Your task to perform on an android device: Go to Google Image 0: 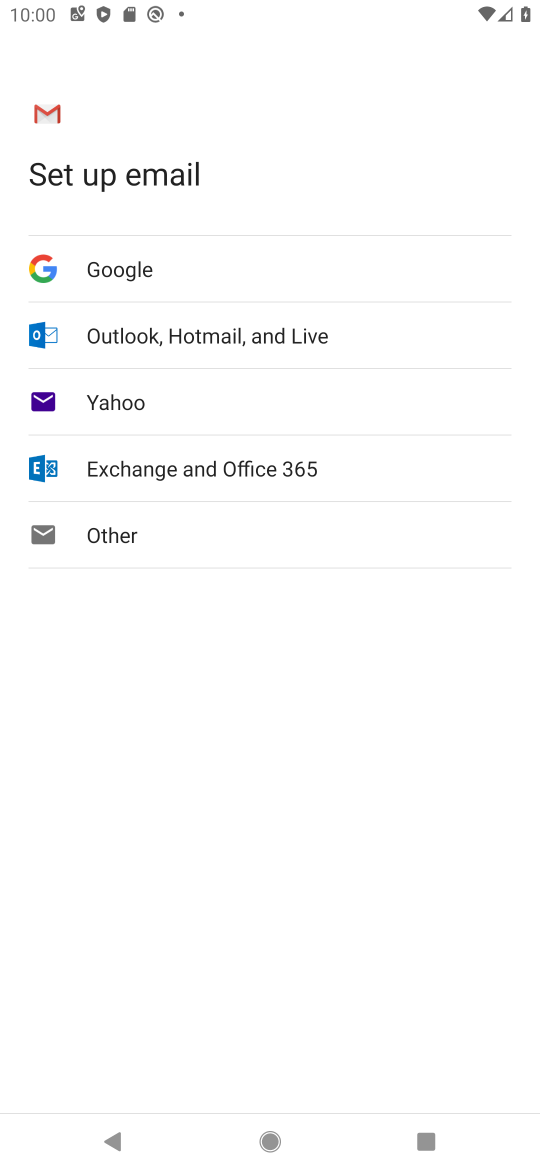
Step 0: press home button
Your task to perform on an android device: Go to Google Image 1: 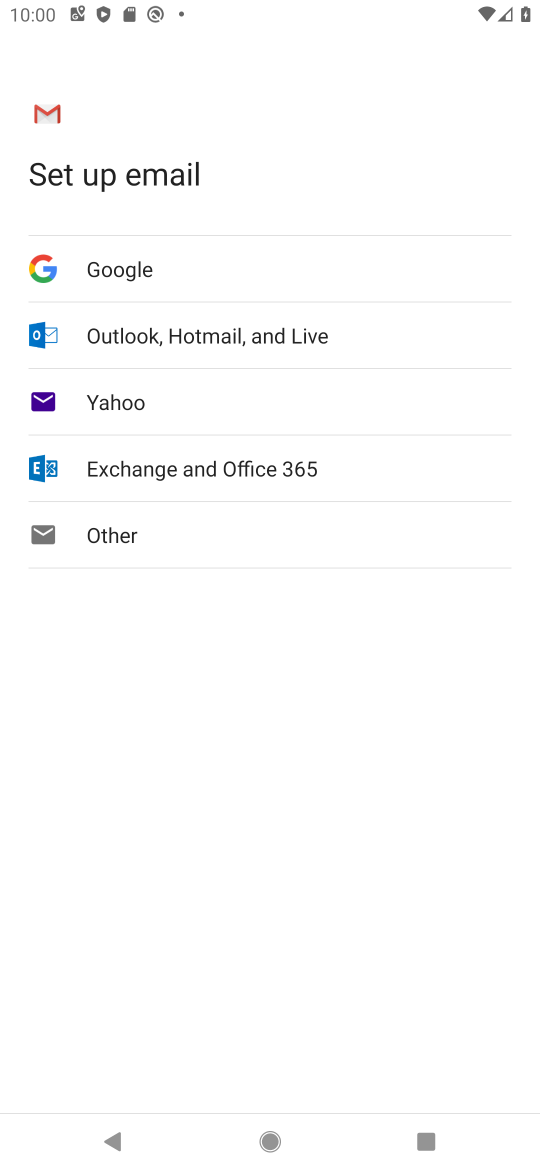
Step 1: press home button
Your task to perform on an android device: Go to Google Image 2: 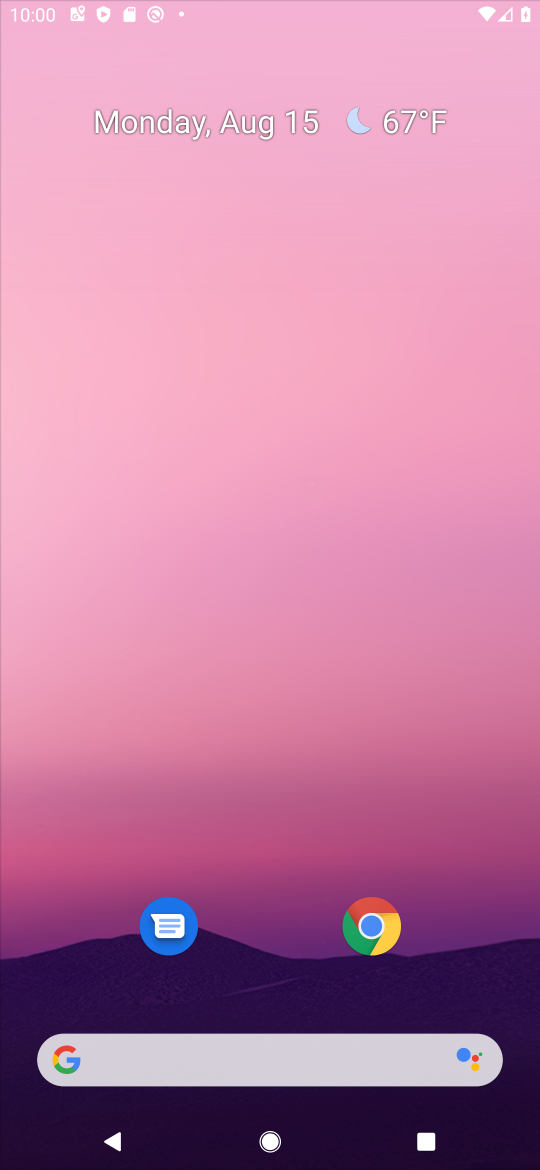
Step 2: press home button
Your task to perform on an android device: Go to Google Image 3: 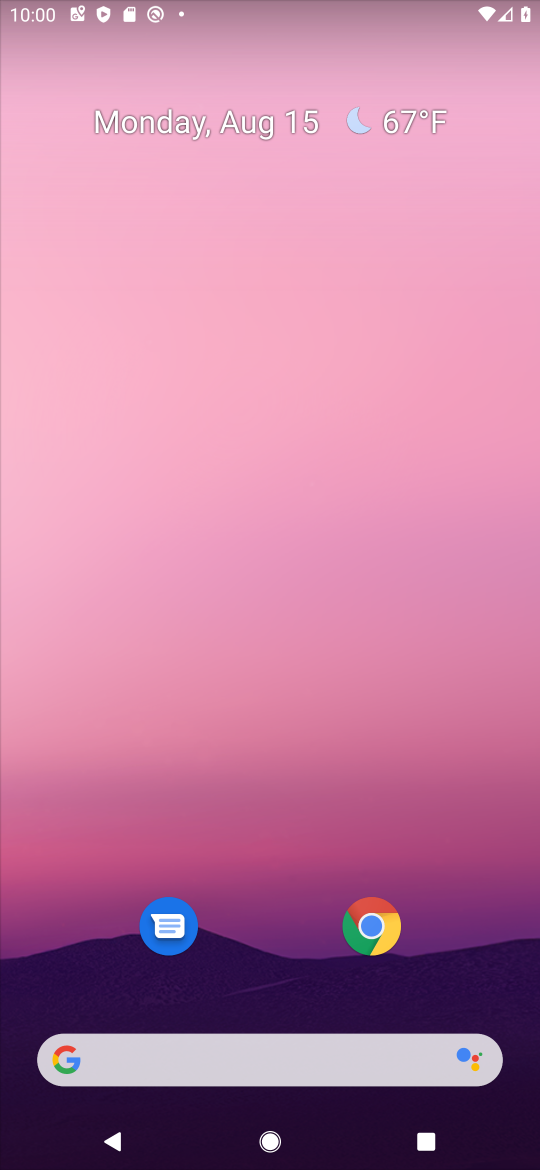
Step 3: click (373, 932)
Your task to perform on an android device: Go to Google Image 4: 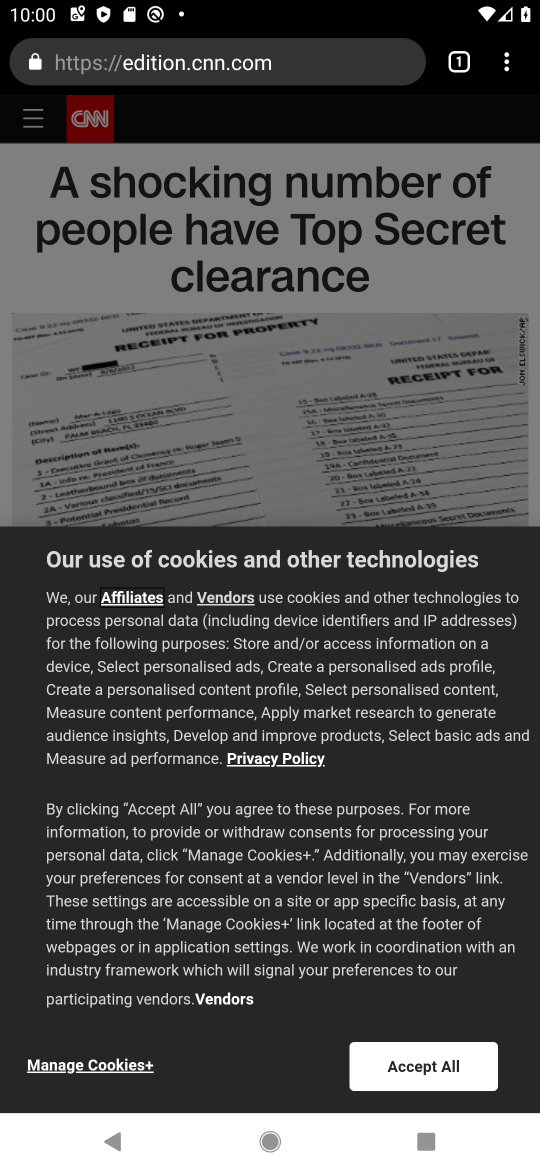
Step 4: click (506, 62)
Your task to perform on an android device: Go to Google Image 5: 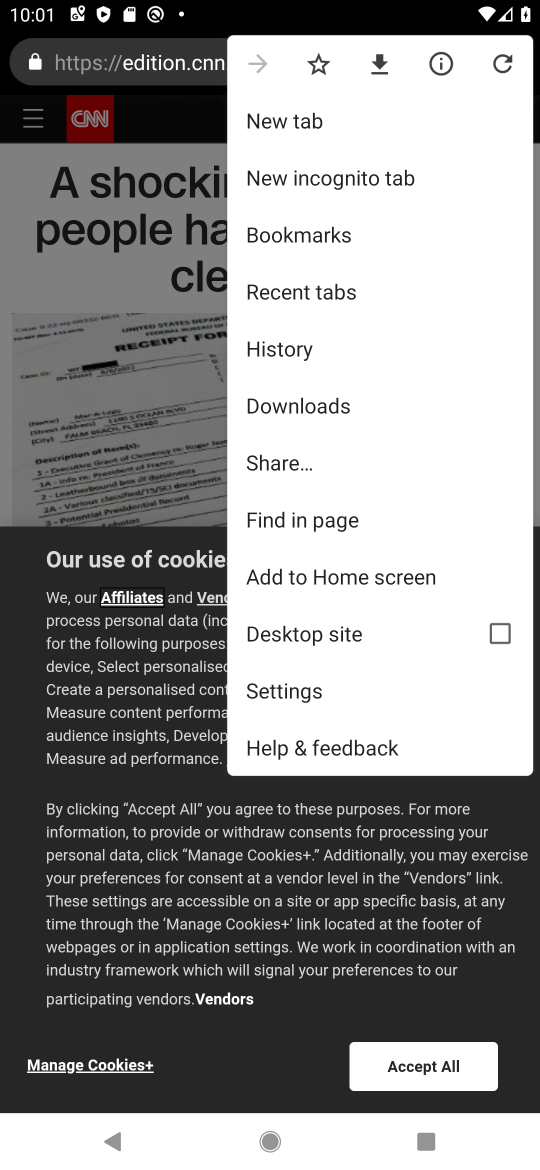
Step 5: press home button
Your task to perform on an android device: Go to Google Image 6: 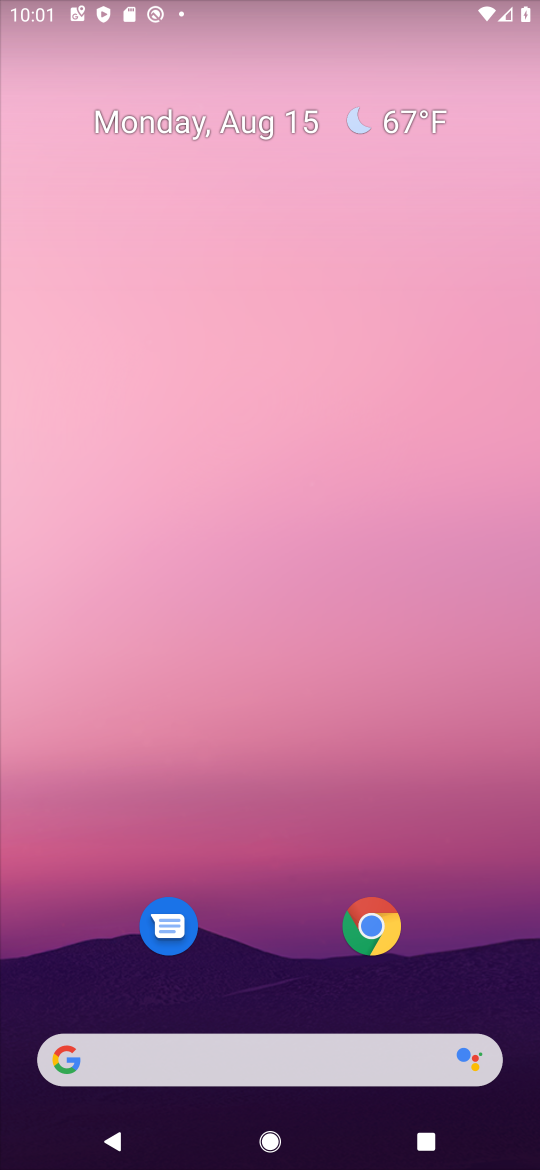
Step 6: drag from (251, 664) to (165, 61)
Your task to perform on an android device: Go to Google Image 7: 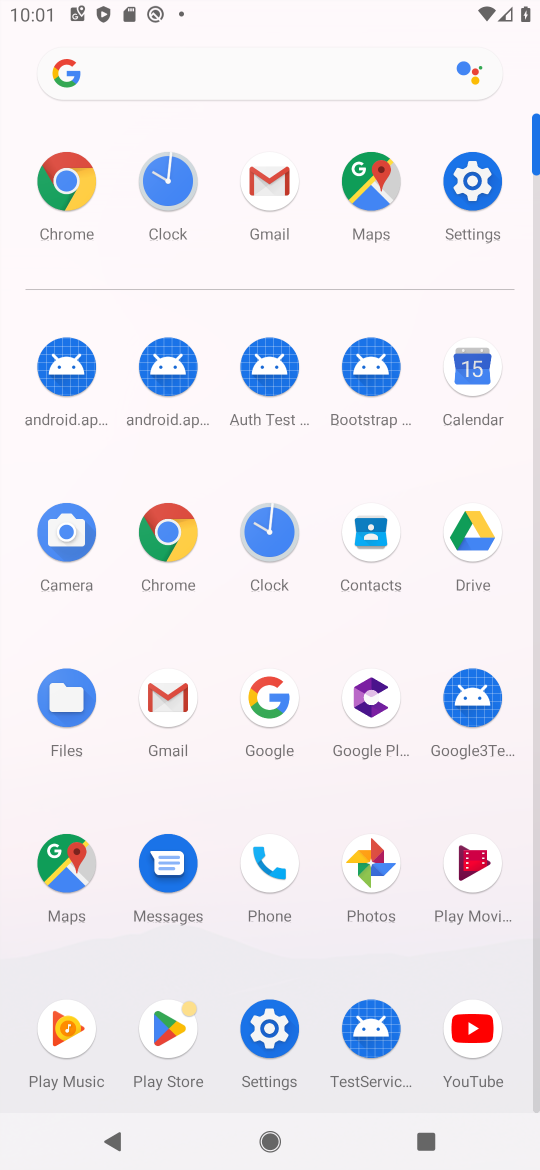
Step 7: click (264, 700)
Your task to perform on an android device: Go to Google Image 8: 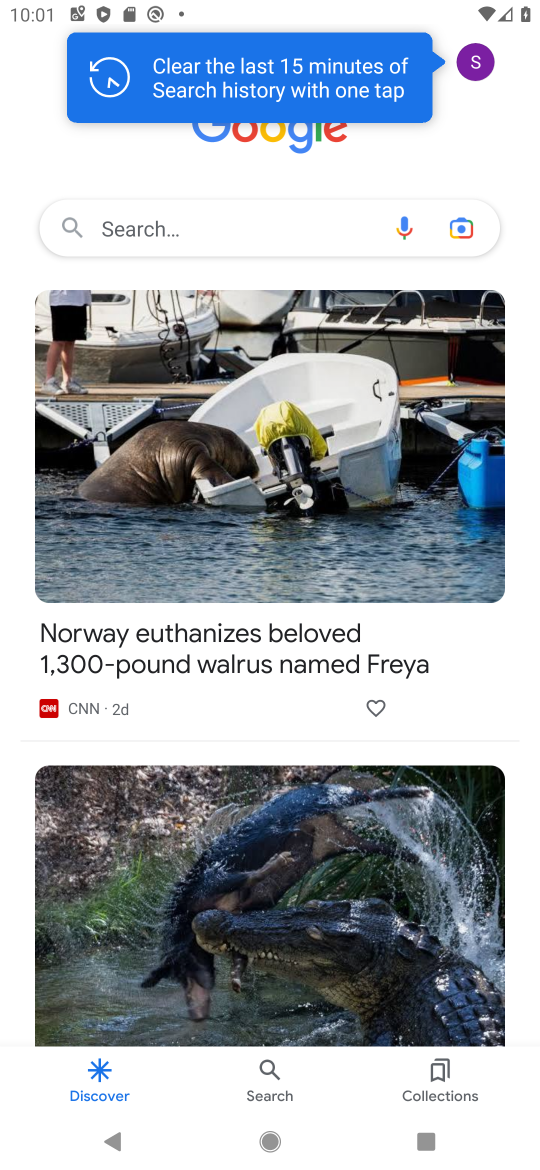
Step 8: task complete